Your task to perform on an android device: turn on bluetooth scan Image 0: 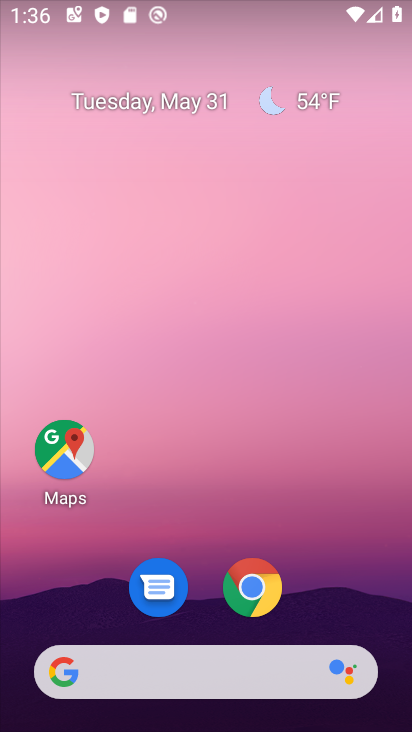
Step 0: drag from (198, 609) to (210, 120)
Your task to perform on an android device: turn on bluetooth scan Image 1: 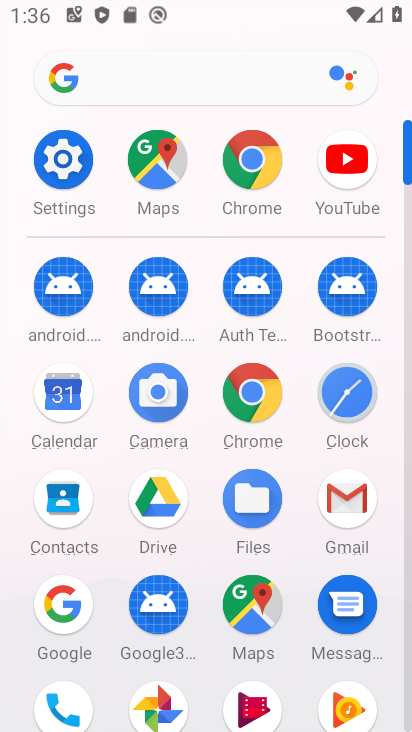
Step 1: click (66, 152)
Your task to perform on an android device: turn on bluetooth scan Image 2: 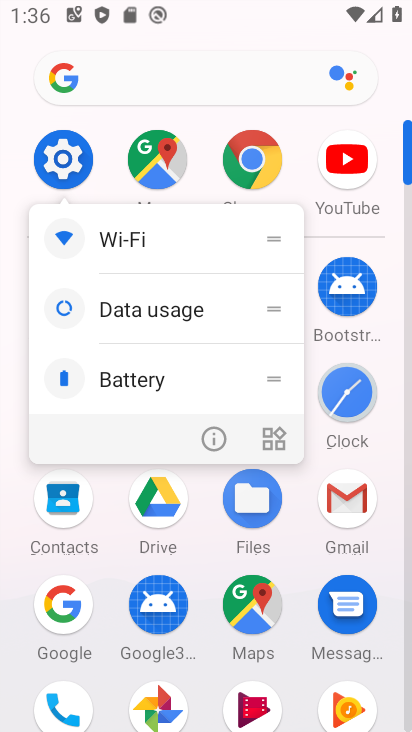
Step 2: click (214, 437)
Your task to perform on an android device: turn on bluetooth scan Image 3: 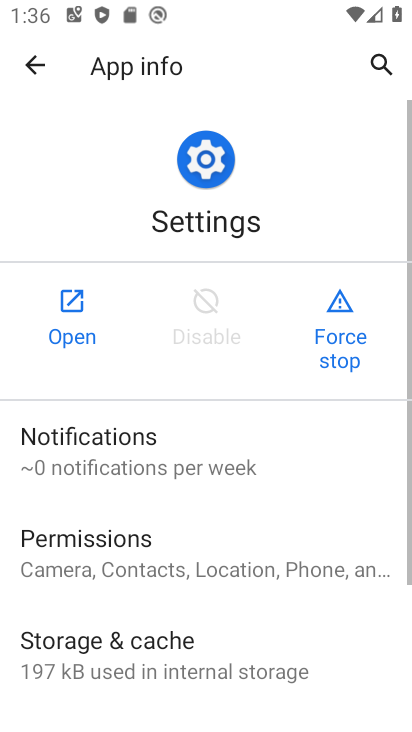
Step 3: click (68, 312)
Your task to perform on an android device: turn on bluetooth scan Image 4: 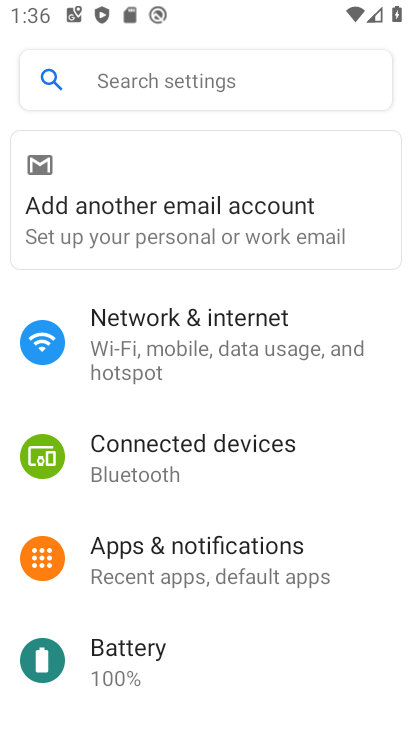
Step 4: drag from (199, 532) to (265, 79)
Your task to perform on an android device: turn on bluetooth scan Image 5: 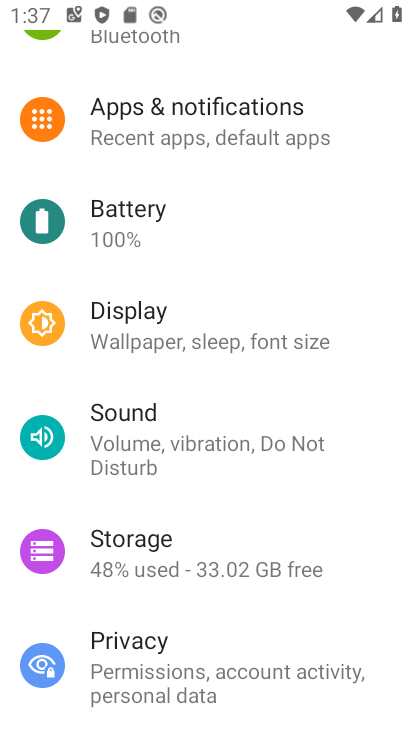
Step 5: drag from (214, 559) to (325, 196)
Your task to perform on an android device: turn on bluetooth scan Image 6: 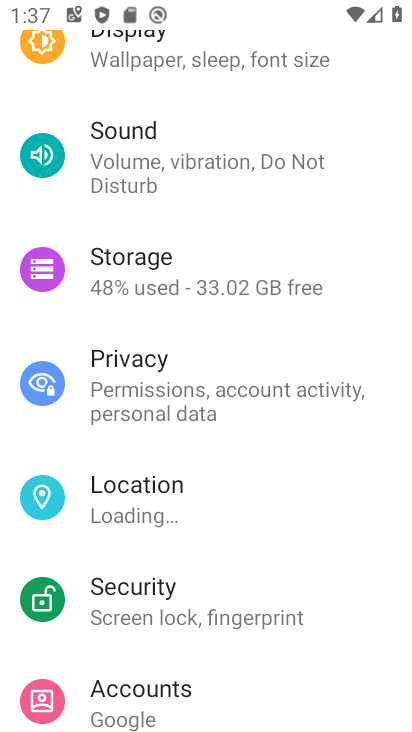
Step 6: drag from (164, 652) to (274, 110)
Your task to perform on an android device: turn on bluetooth scan Image 7: 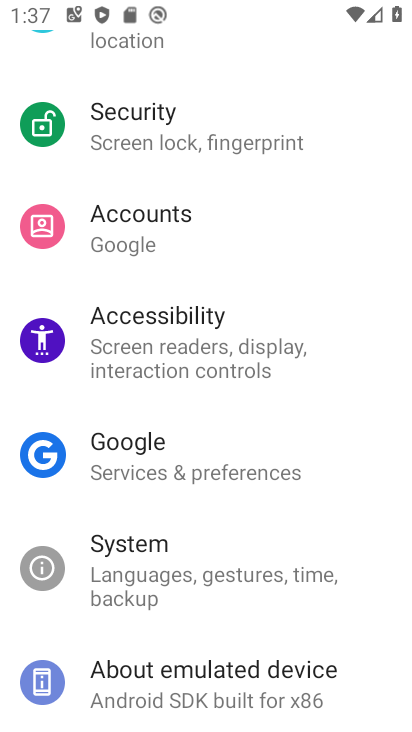
Step 7: drag from (232, 219) to (275, 616)
Your task to perform on an android device: turn on bluetooth scan Image 8: 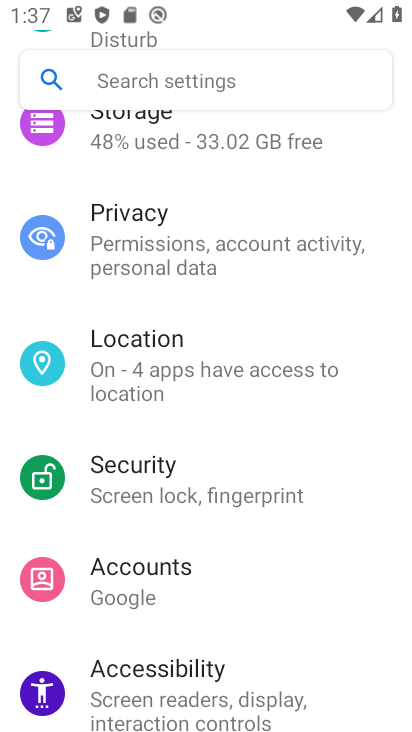
Step 8: drag from (165, 197) to (237, 649)
Your task to perform on an android device: turn on bluetooth scan Image 9: 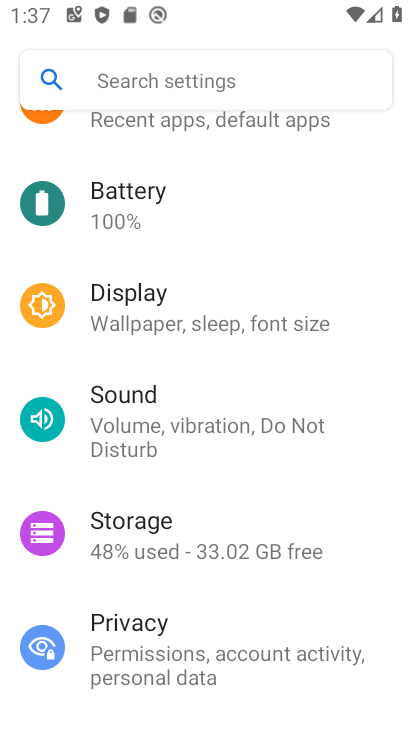
Step 9: click (181, 213)
Your task to perform on an android device: turn on bluetooth scan Image 10: 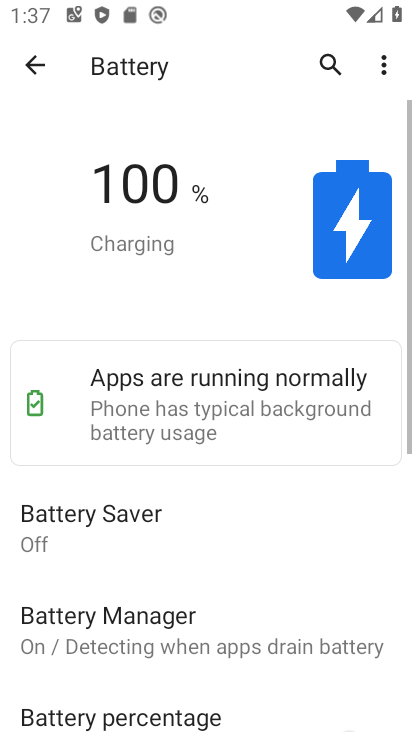
Step 10: drag from (194, 586) to (268, 164)
Your task to perform on an android device: turn on bluetooth scan Image 11: 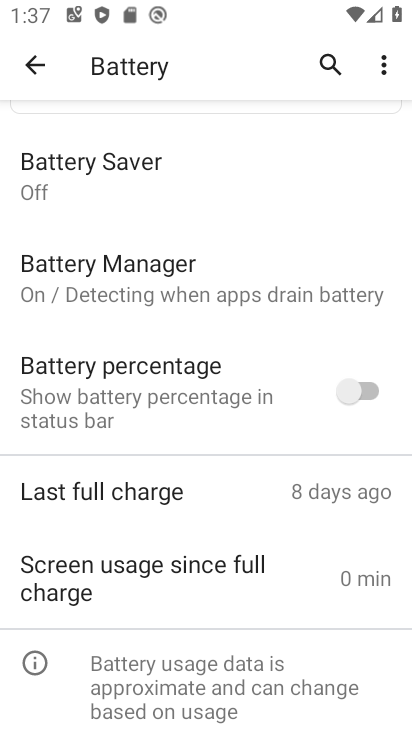
Step 11: drag from (188, 316) to (300, 664)
Your task to perform on an android device: turn on bluetooth scan Image 12: 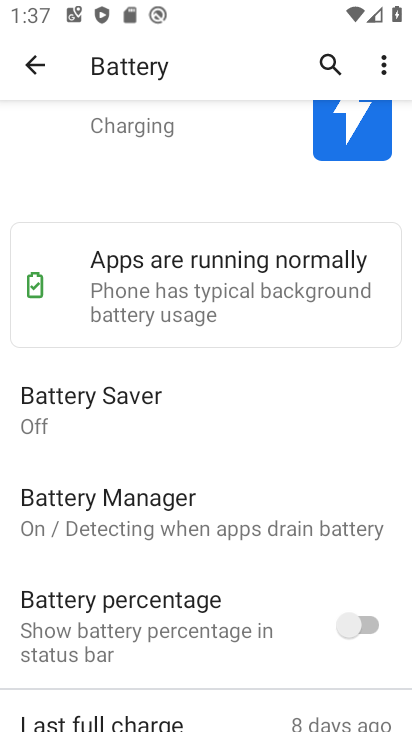
Step 12: drag from (179, 427) to (289, 658)
Your task to perform on an android device: turn on bluetooth scan Image 13: 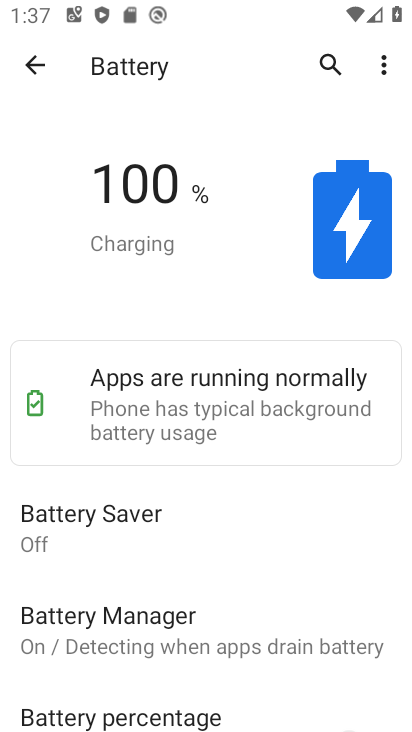
Step 13: drag from (237, 615) to (276, 386)
Your task to perform on an android device: turn on bluetooth scan Image 14: 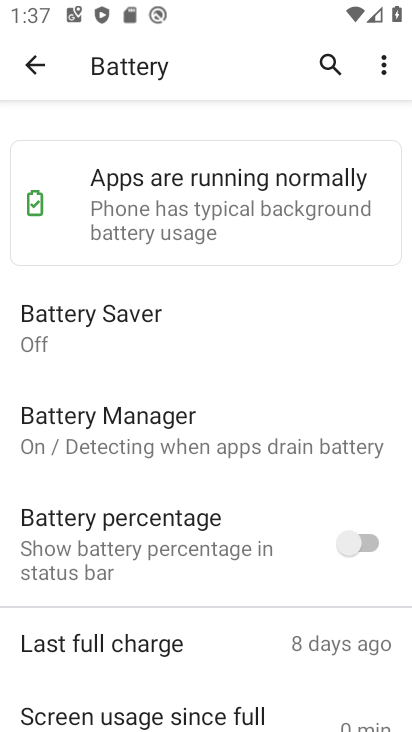
Step 14: click (35, 61)
Your task to perform on an android device: turn on bluetooth scan Image 15: 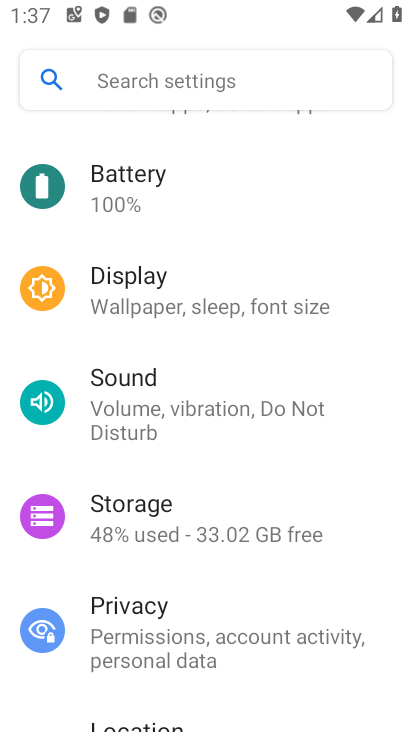
Step 15: drag from (192, 578) to (289, 2)
Your task to perform on an android device: turn on bluetooth scan Image 16: 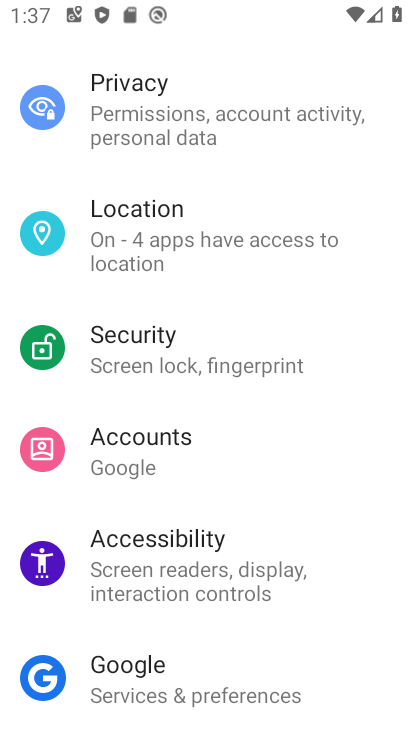
Step 16: click (185, 237)
Your task to perform on an android device: turn on bluetooth scan Image 17: 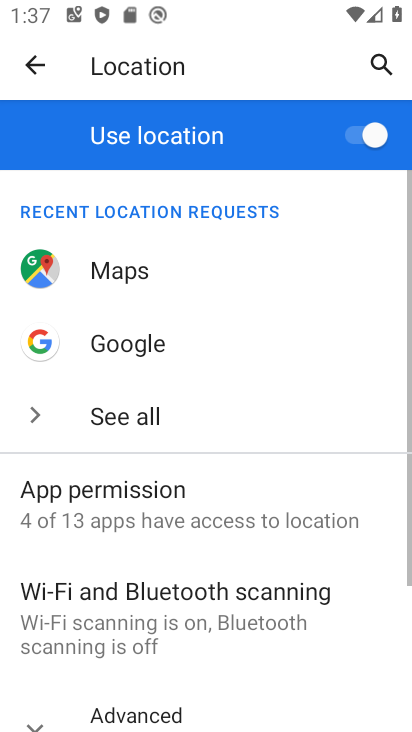
Step 17: click (163, 589)
Your task to perform on an android device: turn on bluetooth scan Image 18: 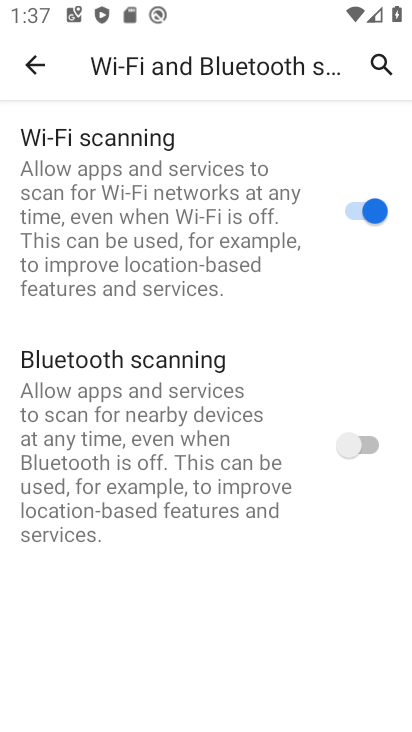
Step 18: click (344, 456)
Your task to perform on an android device: turn on bluetooth scan Image 19: 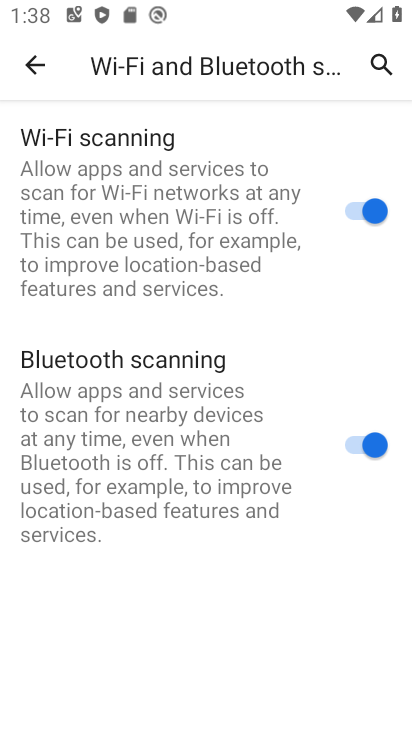
Step 19: task complete